Your task to perform on an android device: Show me recent news Image 0: 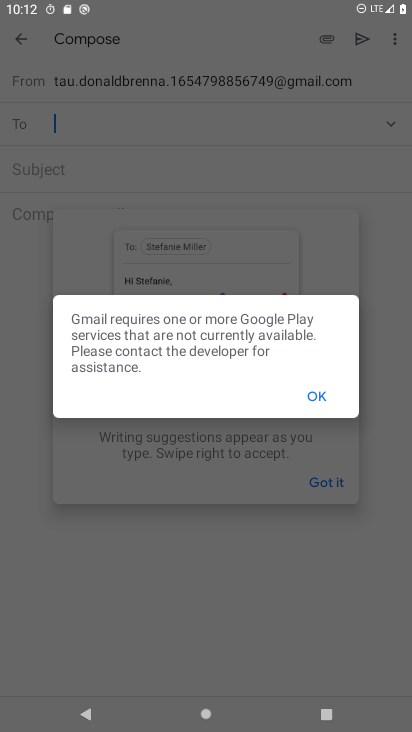
Step 0: press home button
Your task to perform on an android device: Show me recent news Image 1: 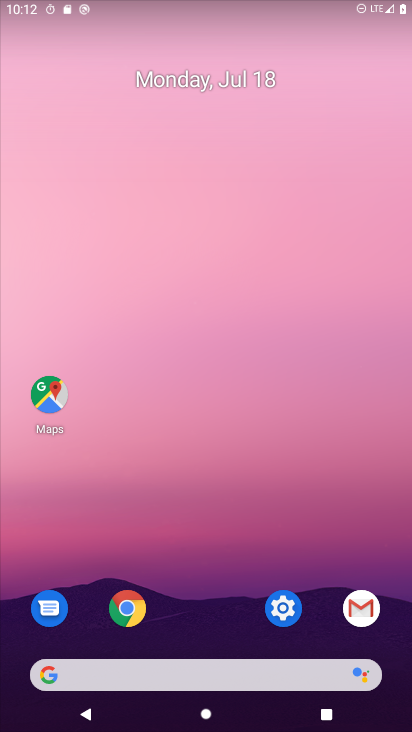
Step 1: click (186, 674)
Your task to perform on an android device: Show me recent news Image 2: 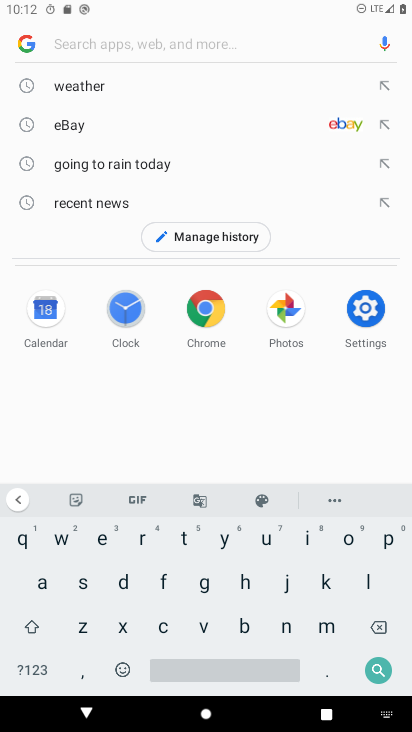
Step 2: click (76, 200)
Your task to perform on an android device: Show me recent news Image 3: 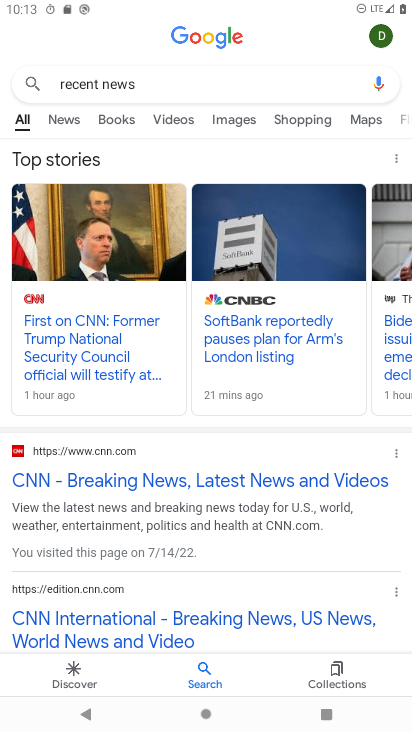
Step 3: task complete